Your task to perform on an android device: snooze an email in the gmail app Image 0: 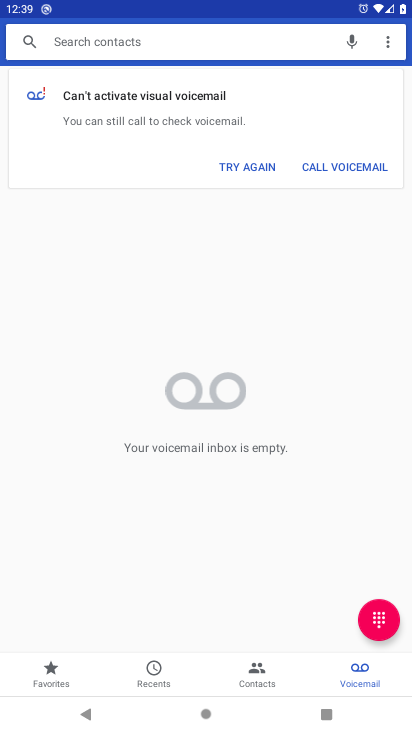
Step 0: press home button
Your task to perform on an android device: snooze an email in the gmail app Image 1: 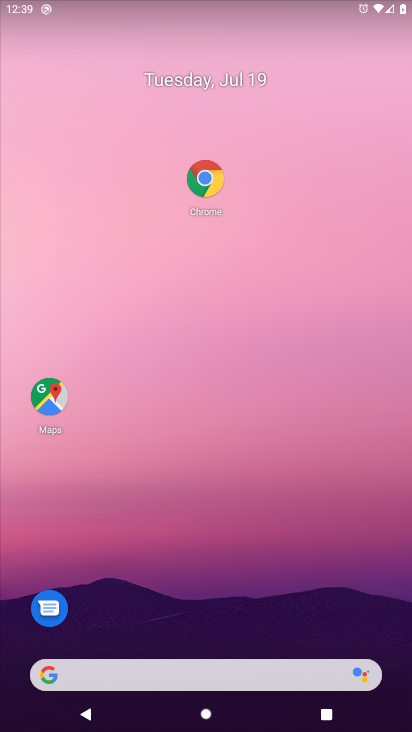
Step 1: drag from (10, 702) to (389, 650)
Your task to perform on an android device: snooze an email in the gmail app Image 2: 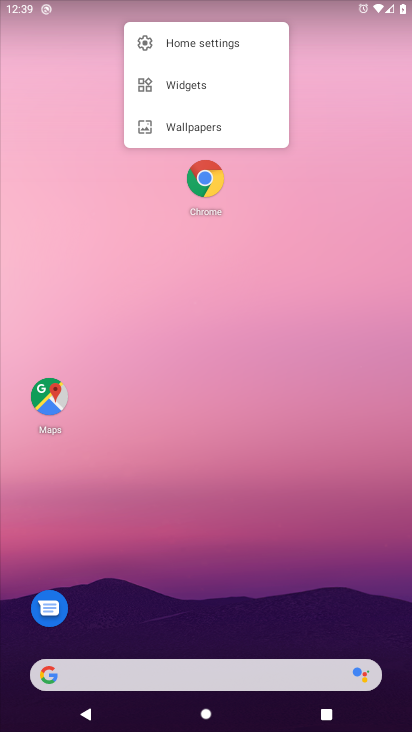
Step 2: drag from (34, 710) to (245, 87)
Your task to perform on an android device: snooze an email in the gmail app Image 3: 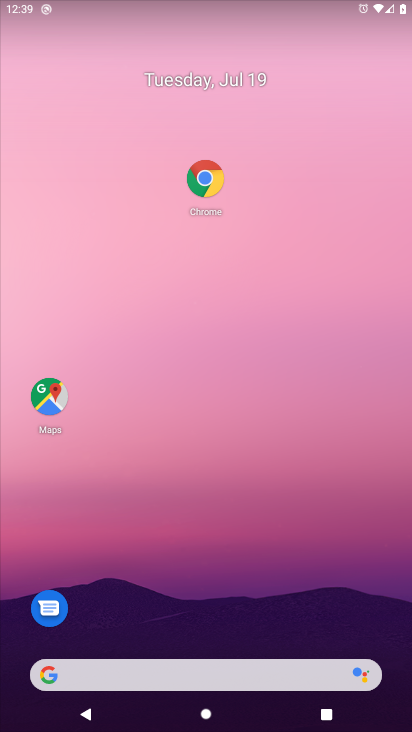
Step 3: drag from (52, 681) to (362, 27)
Your task to perform on an android device: snooze an email in the gmail app Image 4: 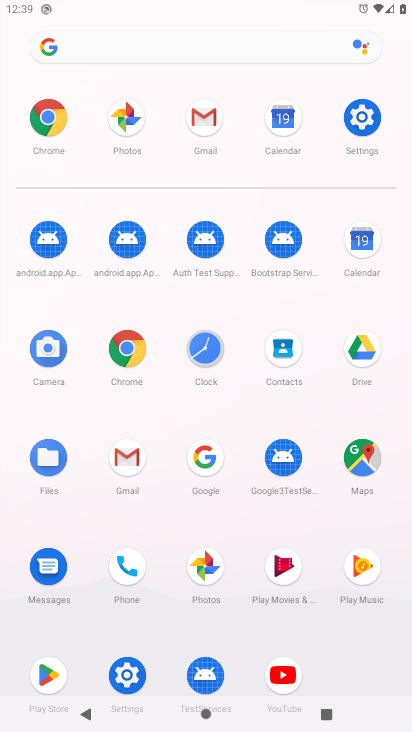
Step 4: click (135, 461)
Your task to perform on an android device: snooze an email in the gmail app Image 5: 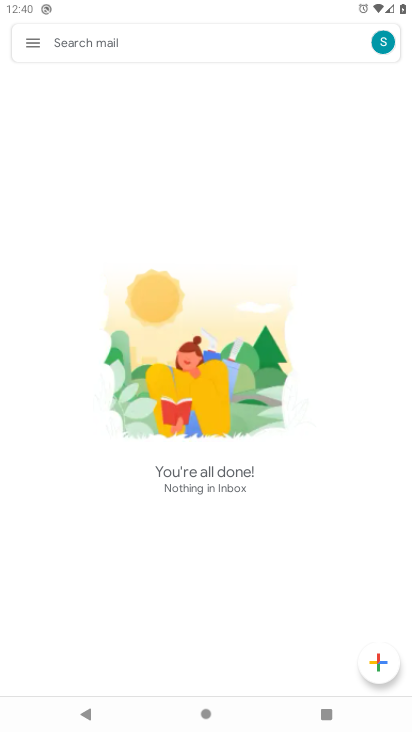
Step 5: click (36, 37)
Your task to perform on an android device: snooze an email in the gmail app Image 6: 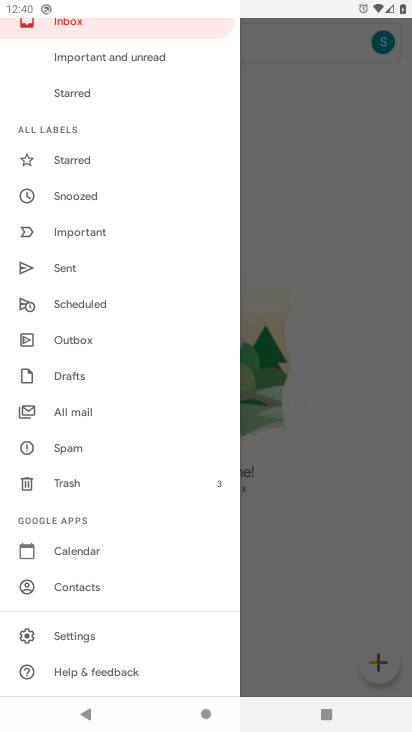
Step 6: click (74, 188)
Your task to perform on an android device: snooze an email in the gmail app Image 7: 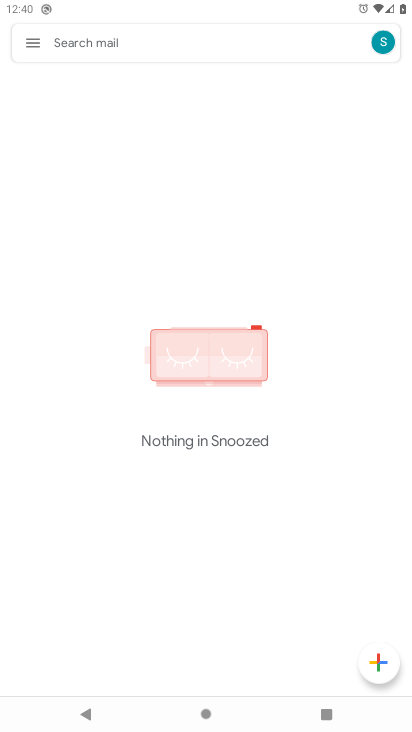
Step 7: task complete